Your task to perform on an android device: find photos in the google photos app Image 0: 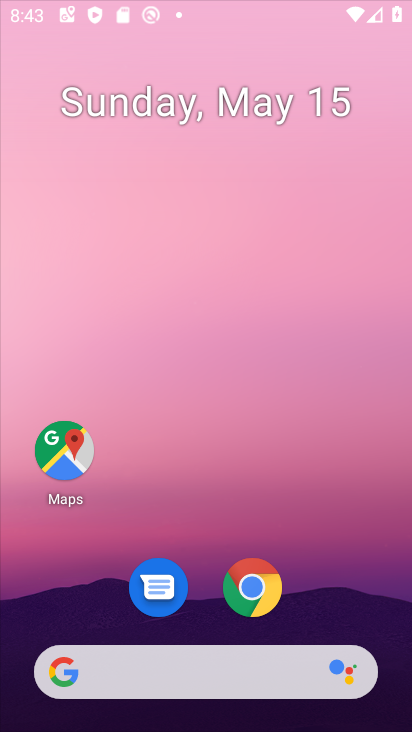
Step 0: drag from (379, 642) to (270, 61)
Your task to perform on an android device: find photos in the google photos app Image 1: 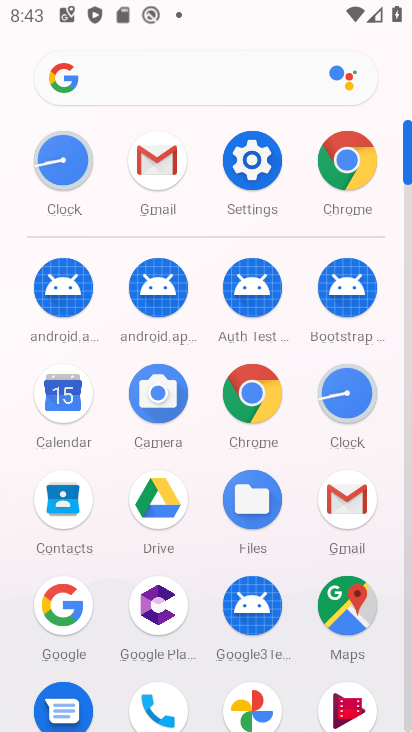
Step 1: click (260, 700)
Your task to perform on an android device: find photos in the google photos app Image 2: 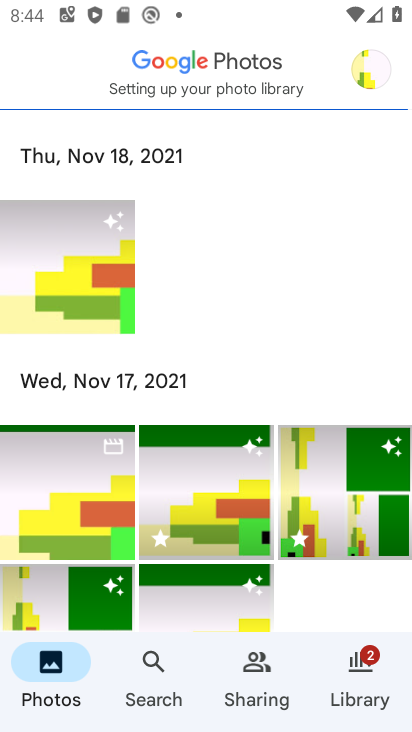
Step 2: task complete